Your task to perform on an android device: Go to eBay Image 0: 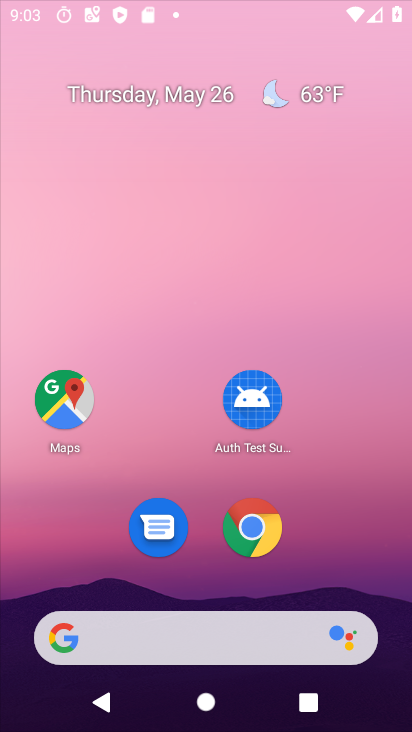
Step 0: drag from (389, 527) to (392, 25)
Your task to perform on an android device: Go to eBay Image 1: 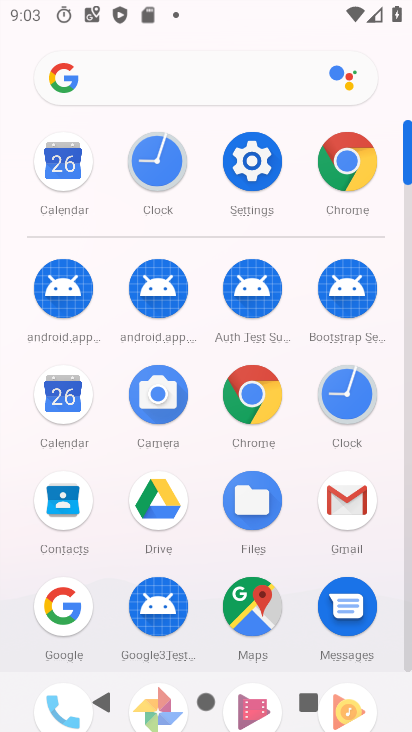
Step 1: click (336, 164)
Your task to perform on an android device: Go to eBay Image 2: 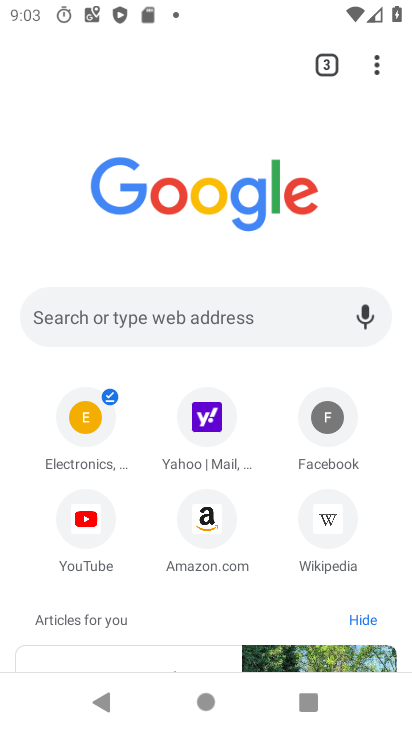
Step 2: drag from (177, 580) to (152, 217)
Your task to perform on an android device: Go to eBay Image 3: 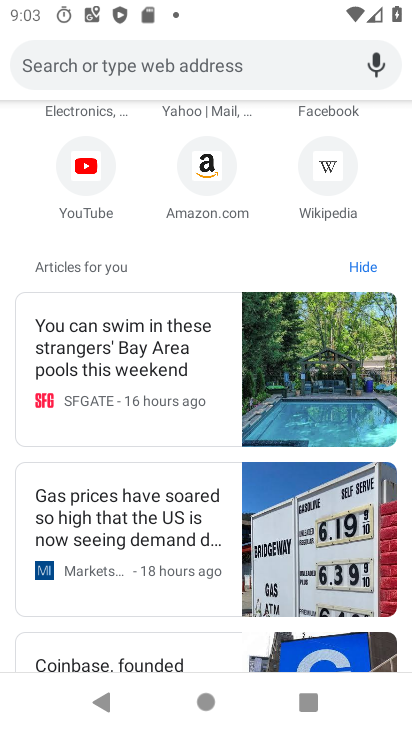
Step 3: drag from (154, 229) to (129, 580)
Your task to perform on an android device: Go to eBay Image 4: 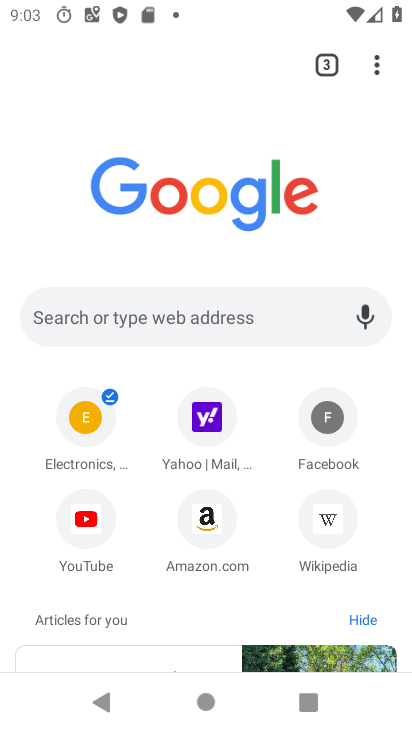
Step 4: click (121, 318)
Your task to perform on an android device: Go to eBay Image 5: 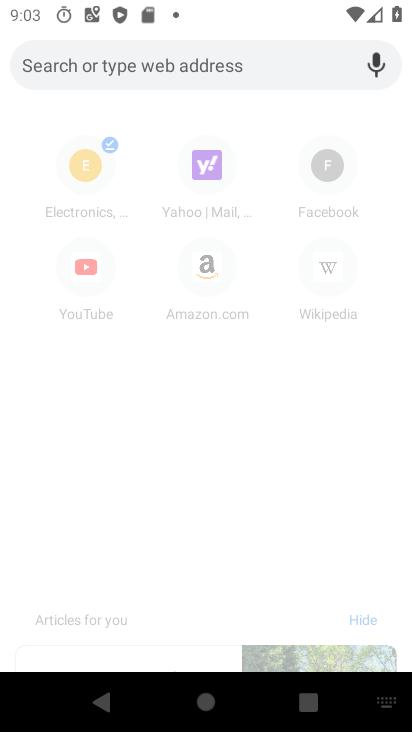
Step 5: type "ebay"
Your task to perform on an android device: Go to eBay Image 6: 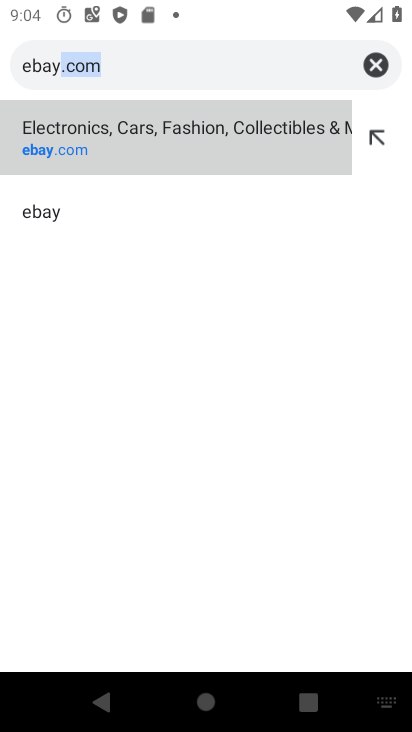
Step 6: click (55, 136)
Your task to perform on an android device: Go to eBay Image 7: 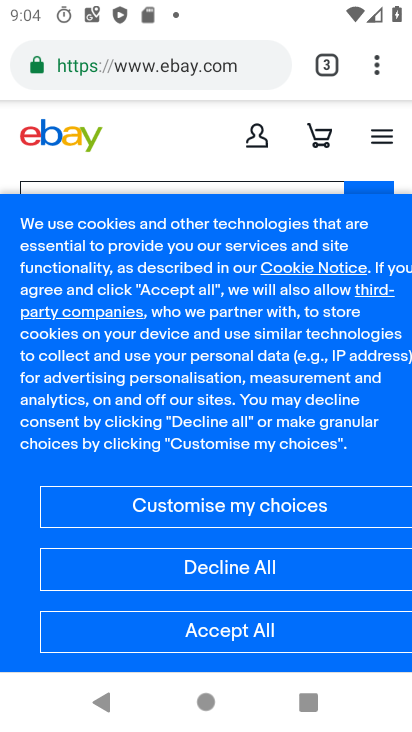
Step 7: task complete